Your task to perform on an android device: move an email to a new category in the gmail app Image 0: 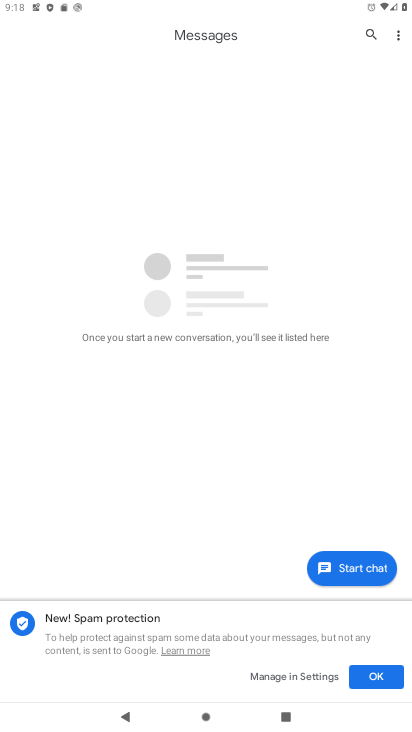
Step 0: press home button
Your task to perform on an android device: move an email to a new category in the gmail app Image 1: 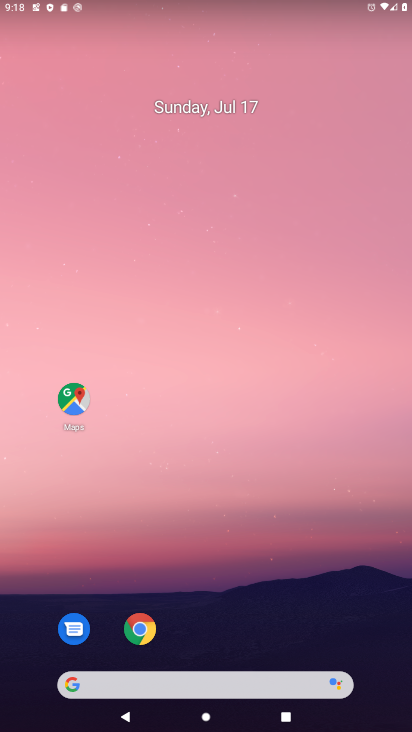
Step 1: drag from (189, 646) to (274, 24)
Your task to perform on an android device: move an email to a new category in the gmail app Image 2: 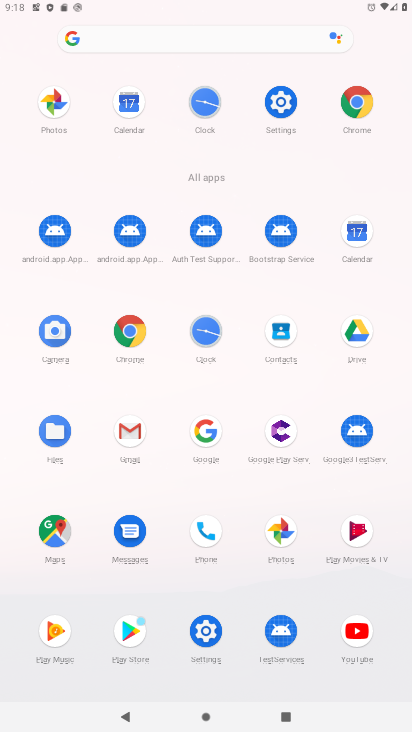
Step 2: click (128, 430)
Your task to perform on an android device: move an email to a new category in the gmail app Image 3: 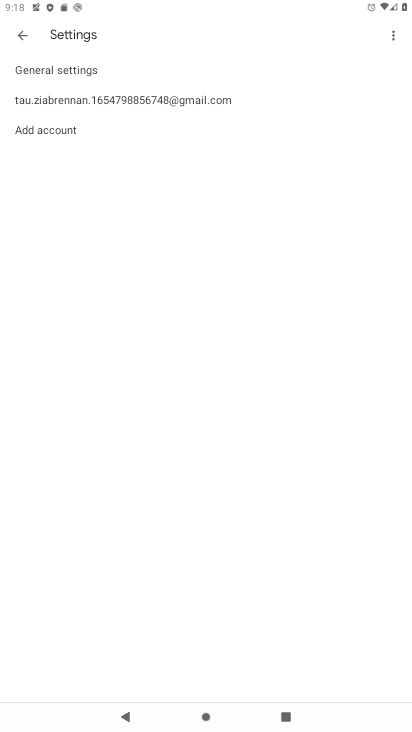
Step 3: click (27, 40)
Your task to perform on an android device: move an email to a new category in the gmail app Image 4: 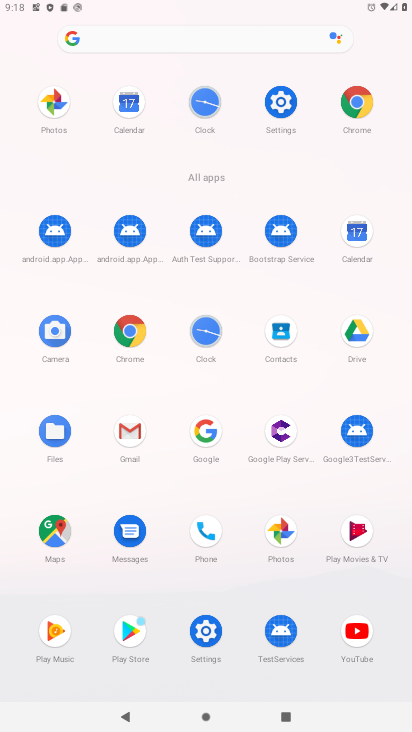
Step 4: click (120, 417)
Your task to perform on an android device: move an email to a new category in the gmail app Image 5: 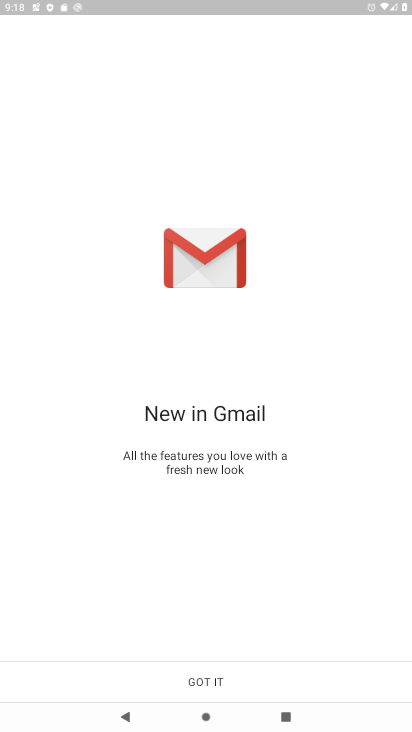
Step 5: click (262, 681)
Your task to perform on an android device: move an email to a new category in the gmail app Image 6: 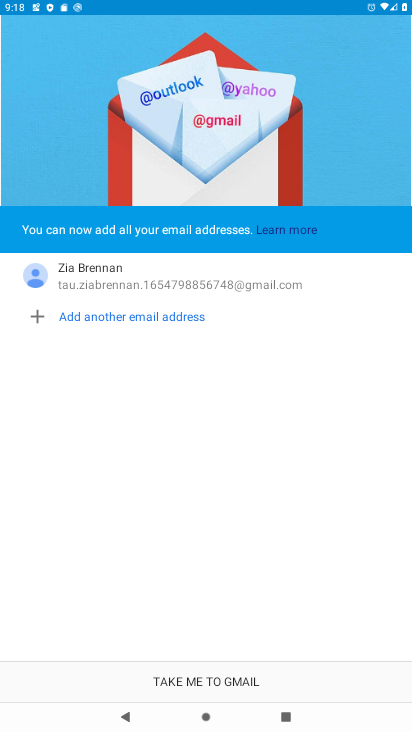
Step 6: click (198, 677)
Your task to perform on an android device: move an email to a new category in the gmail app Image 7: 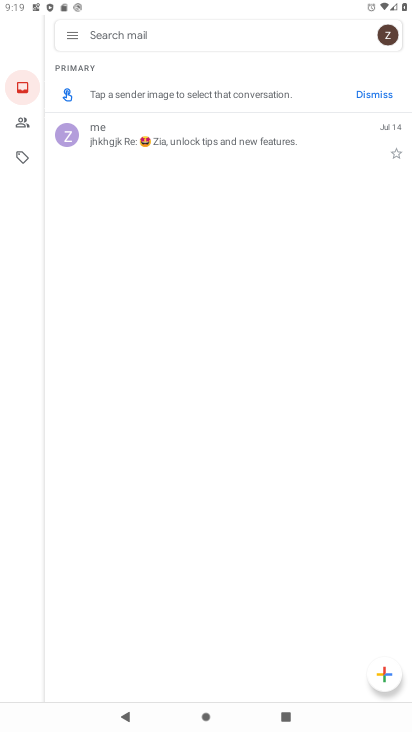
Step 7: click (65, 132)
Your task to perform on an android device: move an email to a new category in the gmail app Image 8: 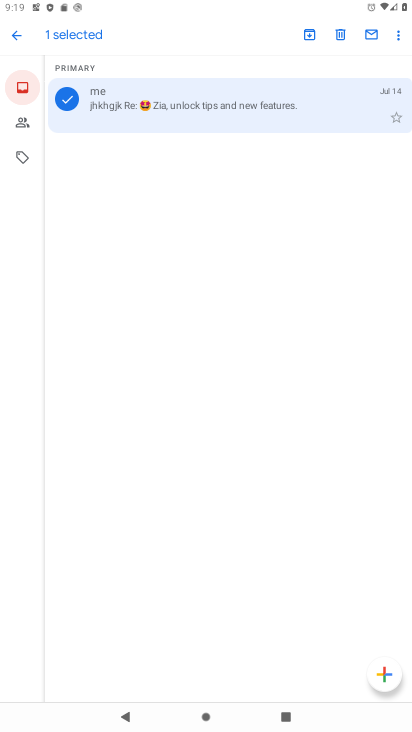
Step 8: click (403, 32)
Your task to perform on an android device: move an email to a new category in the gmail app Image 9: 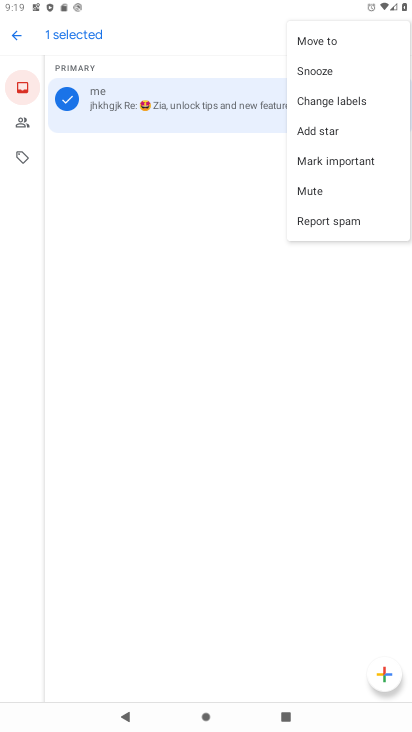
Step 9: click (321, 44)
Your task to perform on an android device: move an email to a new category in the gmail app Image 10: 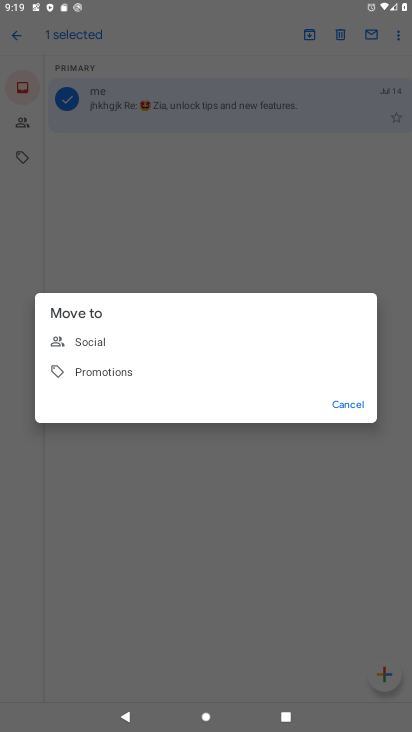
Step 10: click (119, 377)
Your task to perform on an android device: move an email to a new category in the gmail app Image 11: 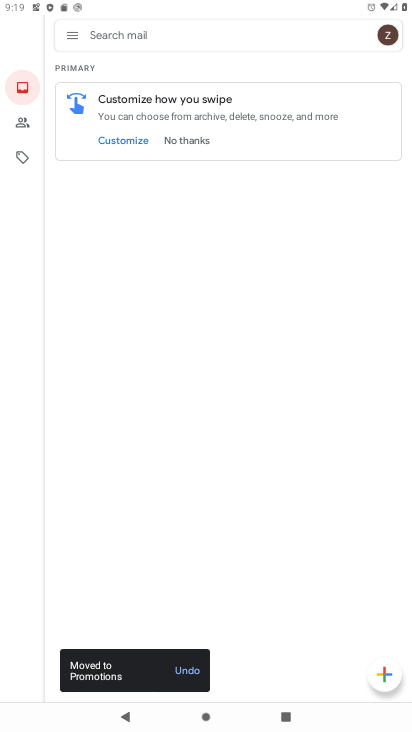
Step 11: task complete